Your task to perform on an android device: uninstall "LinkedIn" Image 0: 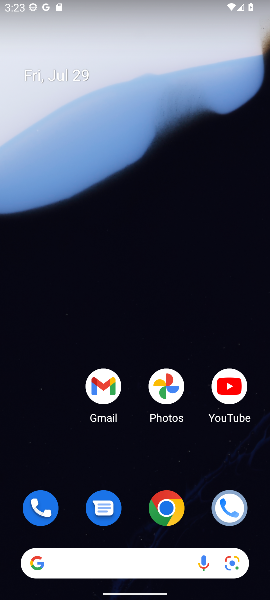
Step 0: drag from (258, 468) to (143, 31)
Your task to perform on an android device: uninstall "LinkedIn" Image 1: 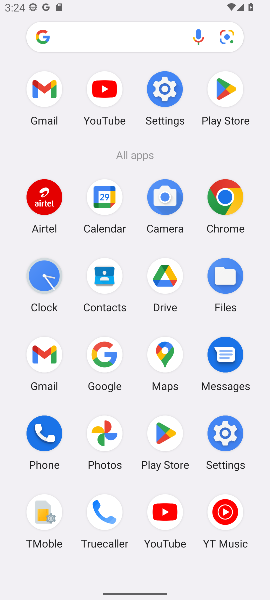
Step 1: click (154, 463)
Your task to perform on an android device: uninstall "LinkedIn" Image 2: 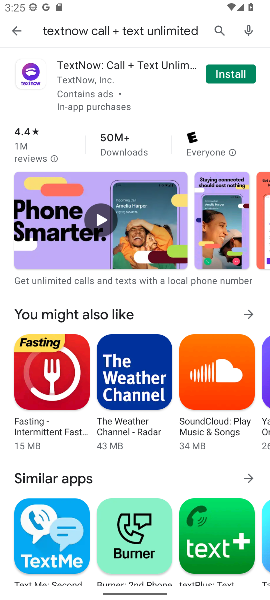
Step 2: press back button
Your task to perform on an android device: uninstall "LinkedIn" Image 3: 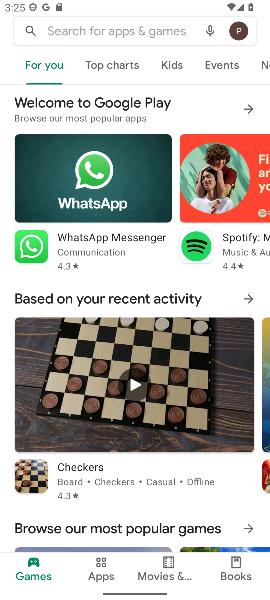
Step 3: click (94, 30)
Your task to perform on an android device: uninstall "LinkedIn" Image 4: 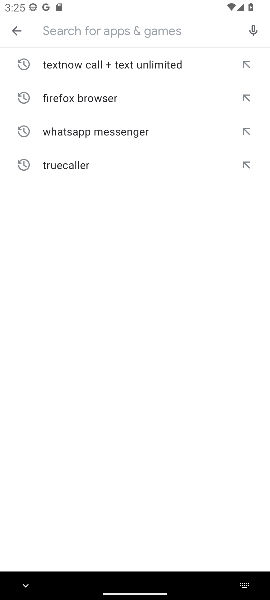
Step 4: type "LinkedIn"
Your task to perform on an android device: uninstall "LinkedIn" Image 5: 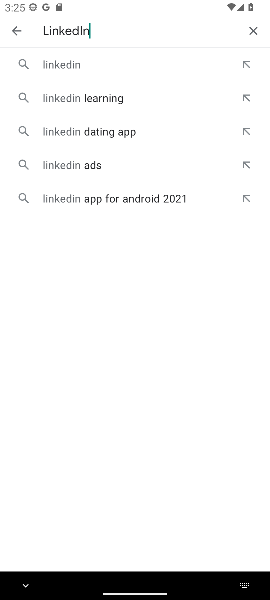
Step 5: click (93, 58)
Your task to perform on an android device: uninstall "LinkedIn" Image 6: 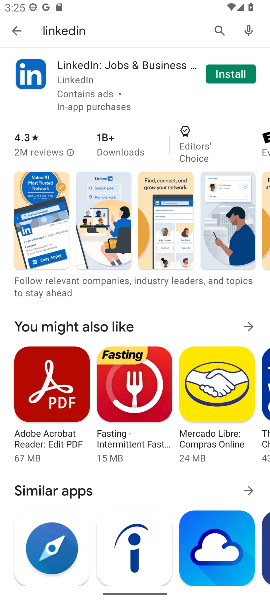
Step 6: task complete